Your task to perform on an android device: star an email in the gmail app Image 0: 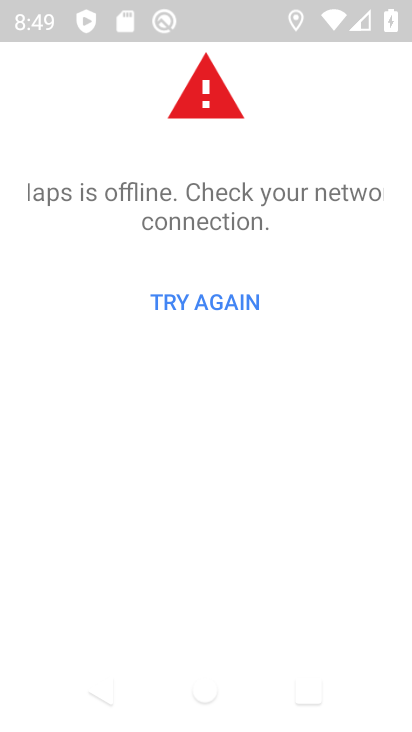
Step 0: press home button
Your task to perform on an android device: star an email in the gmail app Image 1: 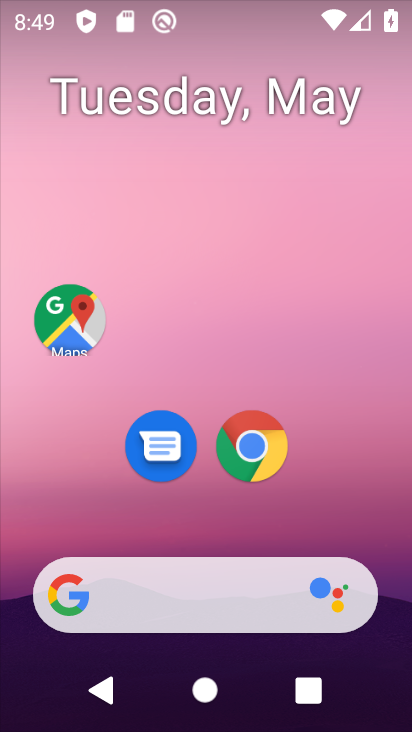
Step 1: drag from (376, 541) to (382, 314)
Your task to perform on an android device: star an email in the gmail app Image 2: 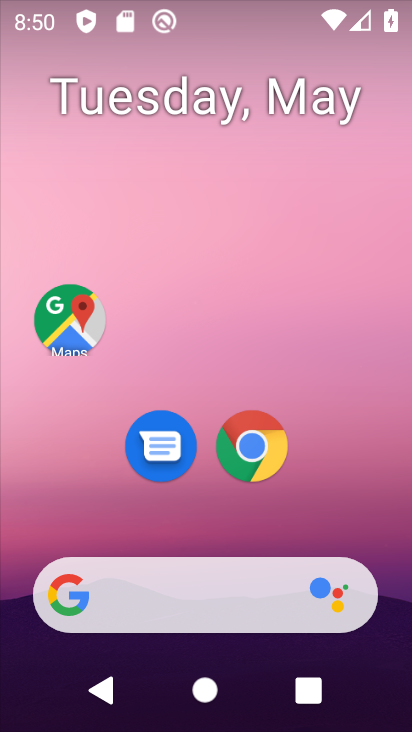
Step 2: drag from (395, 558) to (395, 231)
Your task to perform on an android device: star an email in the gmail app Image 3: 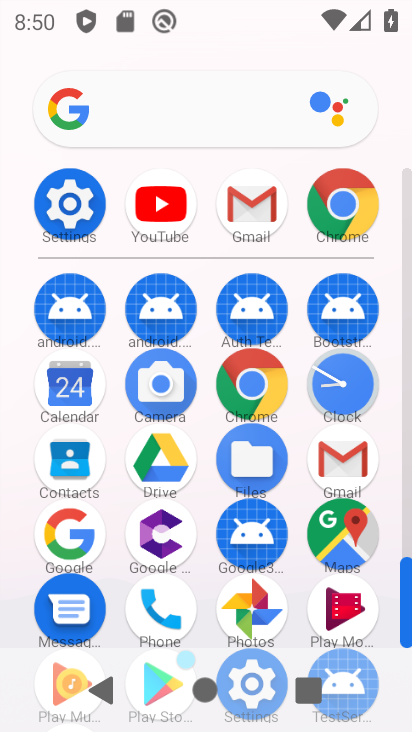
Step 3: click (369, 467)
Your task to perform on an android device: star an email in the gmail app Image 4: 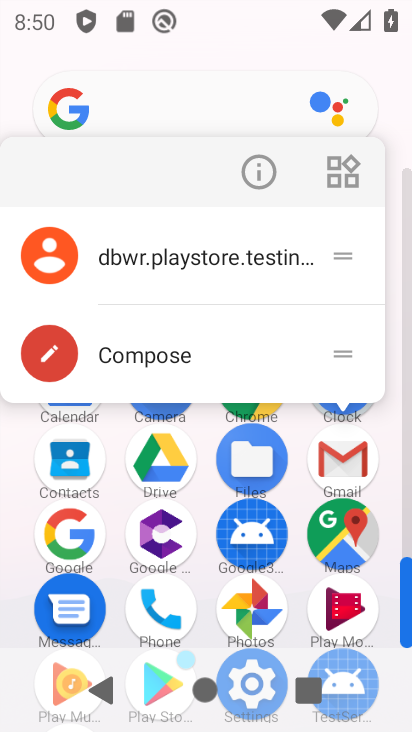
Step 4: click (369, 467)
Your task to perform on an android device: star an email in the gmail app Image 5: 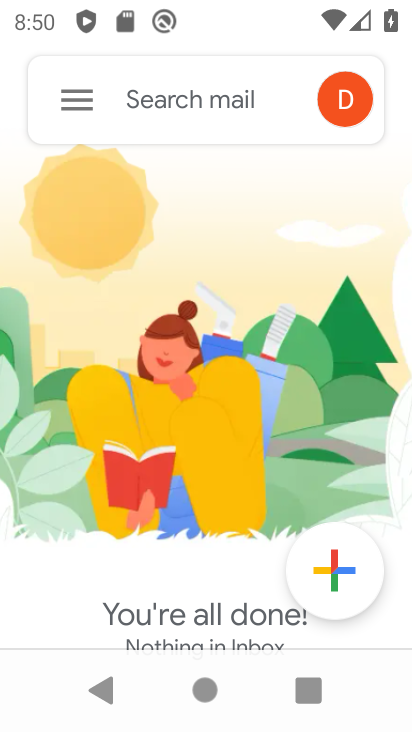
Step 5: task complete